Your task to perform on an android device: Show me popular games on the Play Store Image 0: 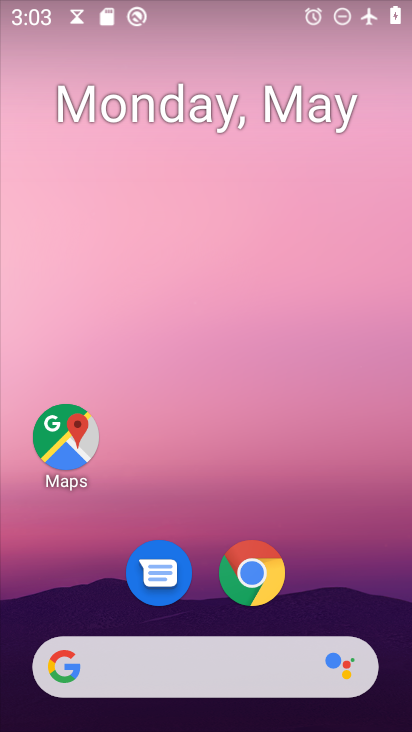
Step 0: drag from (368, 544) to (379, 33)
Your task to perform on an android device: Show me popular games on the Play Store Image 1: 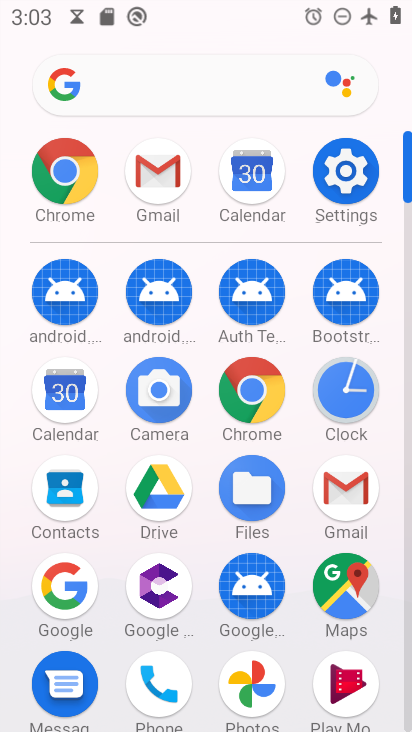
Step 1: drag from (324, 614) to (321, 266)
Your task to perform on an android device: Show me popular games on the Play Store Image 2: 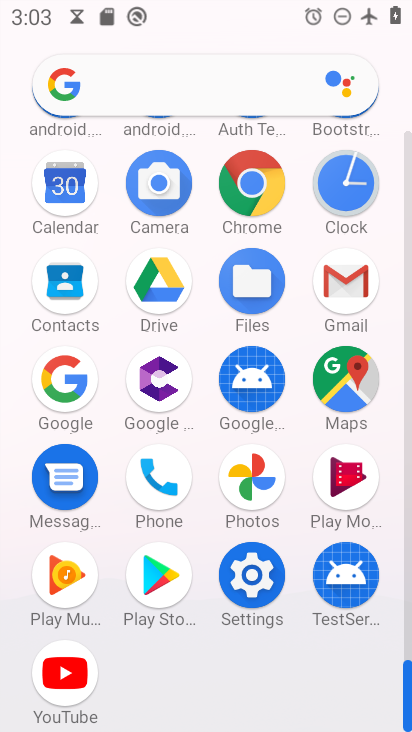
Step 2: click (154, 582)
Your task to perform on an android device: Show me popular games on the Play Store Image 3: 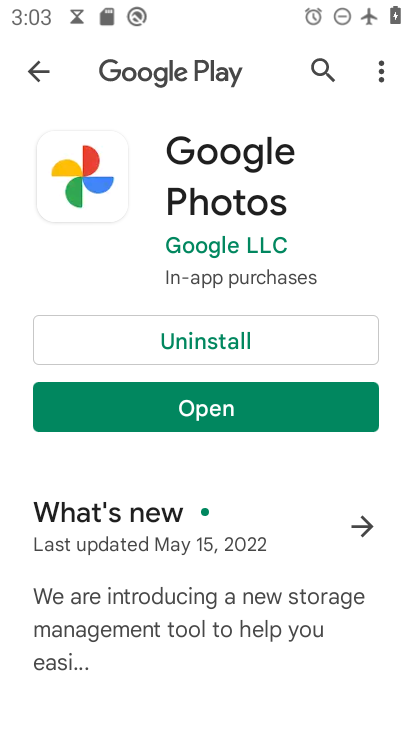
Step 3: press back button
Your task to perform on an android device: Show me popular games on the Play Store Image 4: 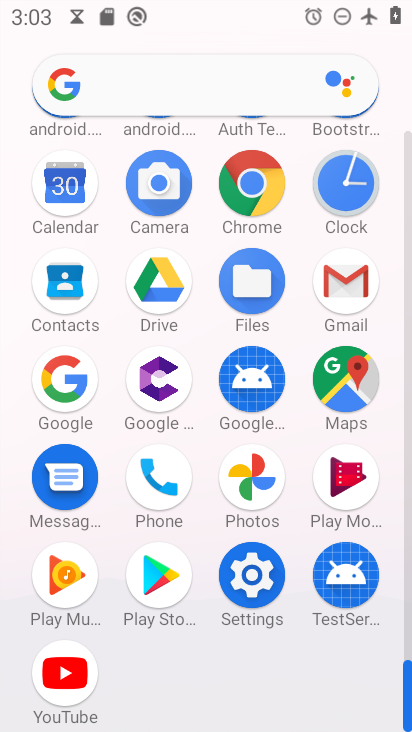
Step 4: click (167, 594)
Your task to perform on an android device: Show me popular games on the Play Store Image 5: 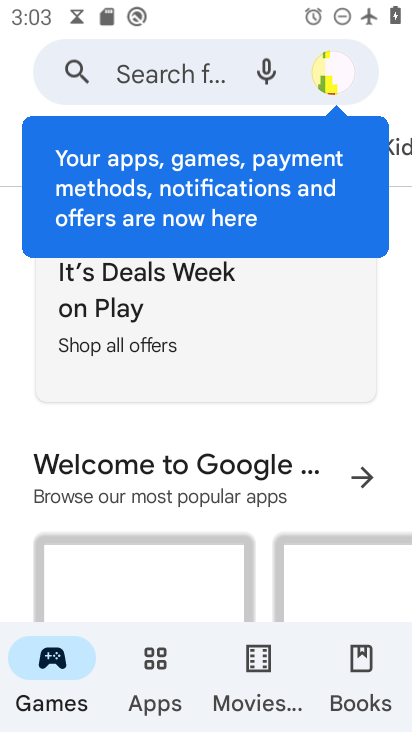
Step 5: task complete